Your task to perform on an android device: Show the shopping cart on bestbuy.com. Image 0: 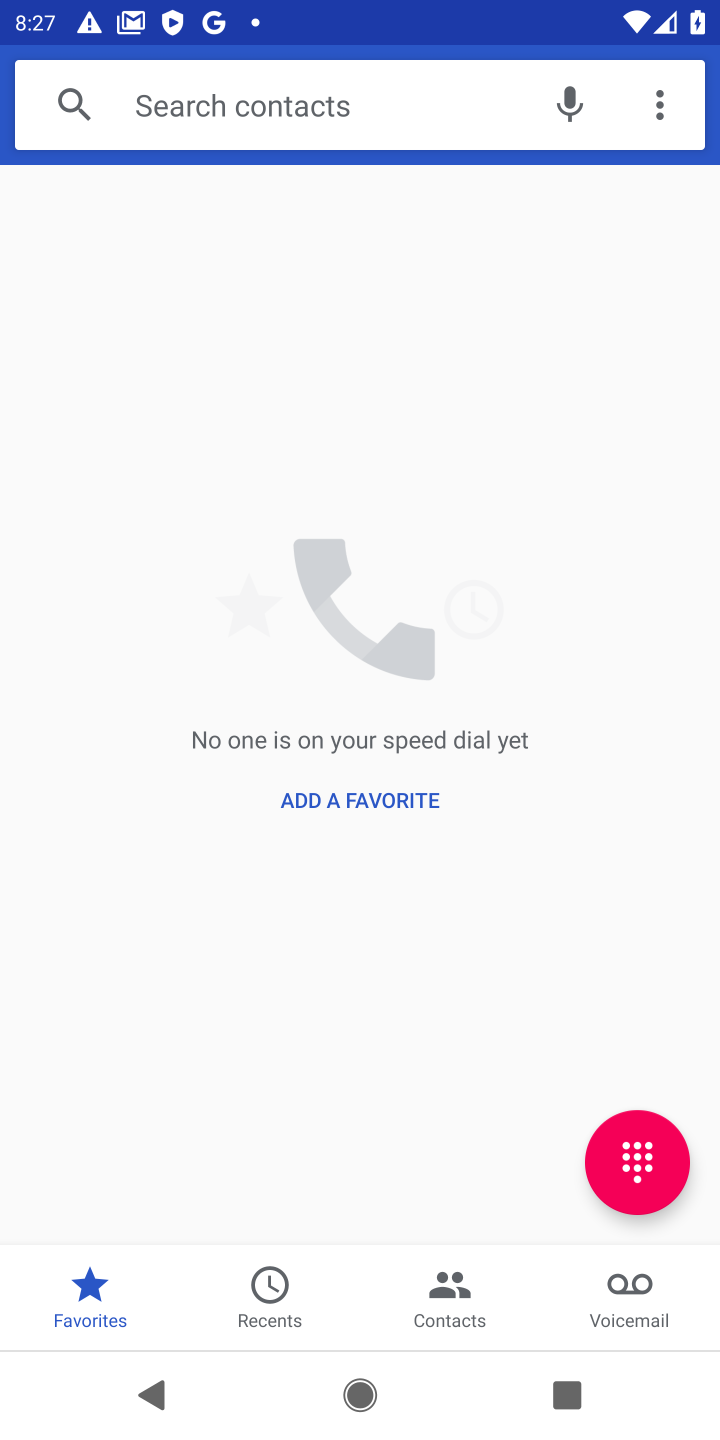
Step 0: press home button
Your task to perform on an android device: Show the shopping cart on bestbuy.com. Image 1: 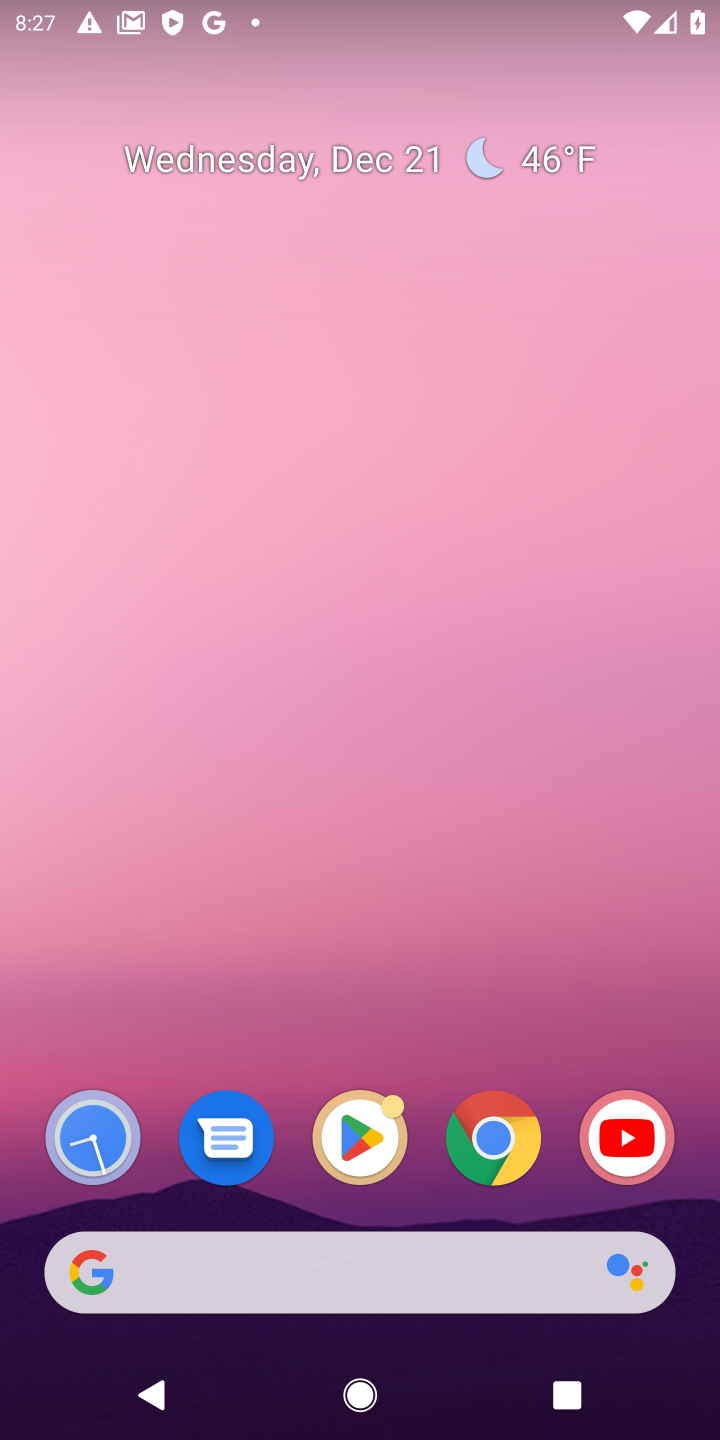
Step 1: click (494, 1164)
Your task to perform on an android device: Show the shopping cart on bestbuy.com. Image 2: 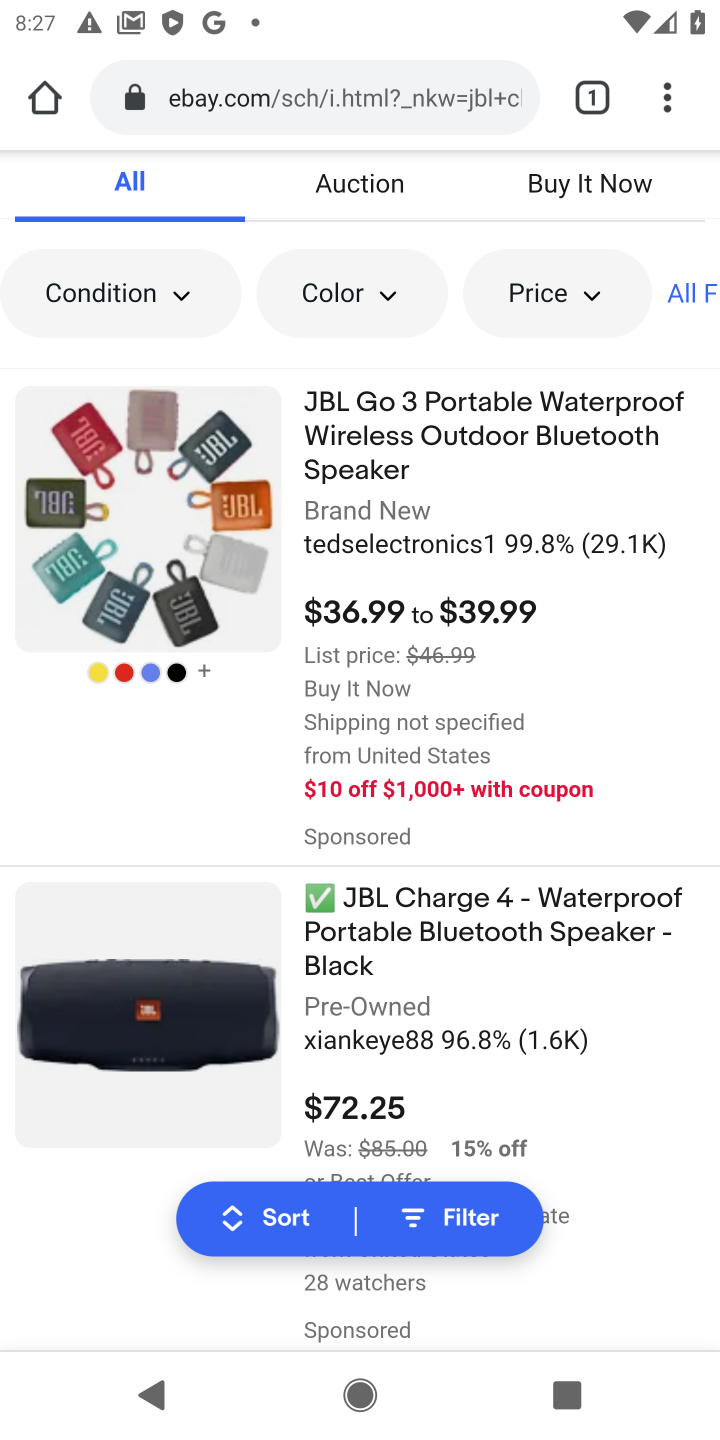
Step 2: click (240, 103)
Your task to perform on an android device: Show the shopping cart on bestbuy.com. Image 3: 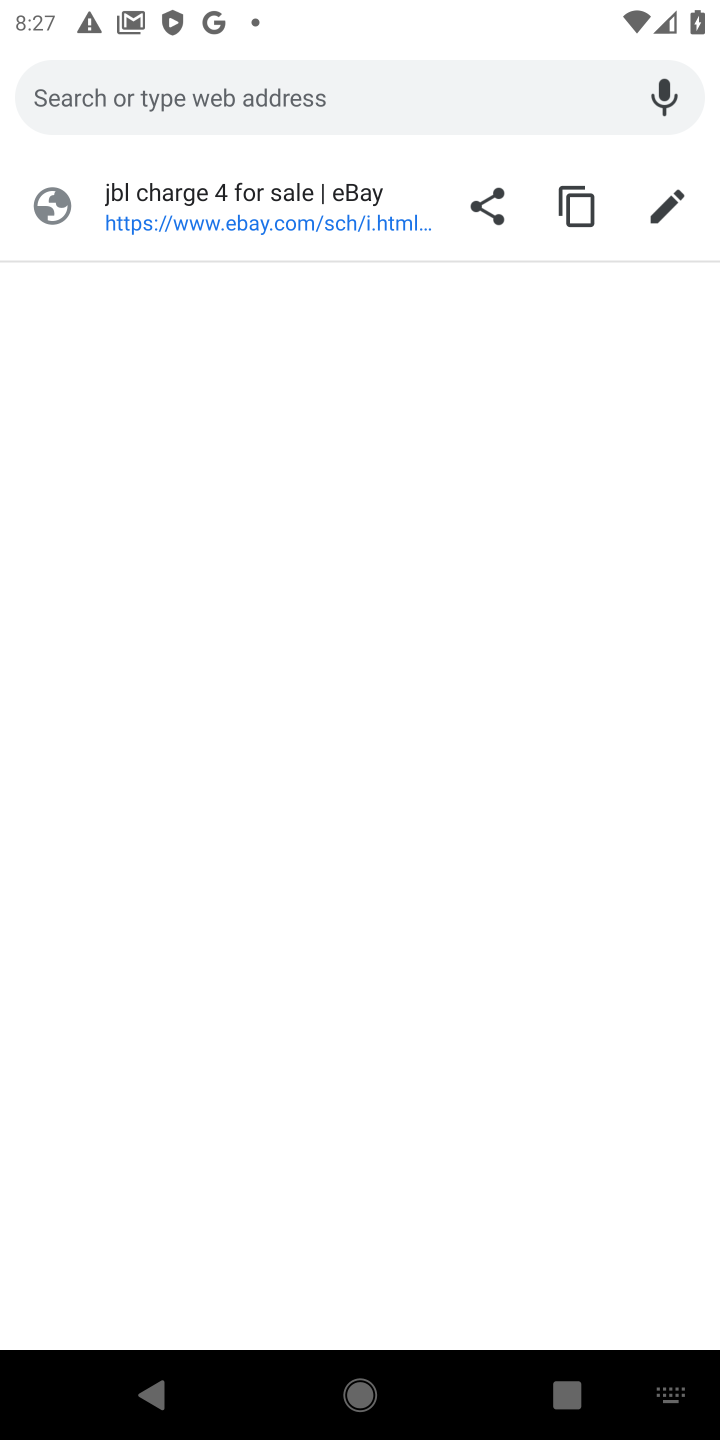
Step 3: type "bestbuy.com"
Your task to perform on an android device: Show the shopping cart on bestbuy.com. Image 4: 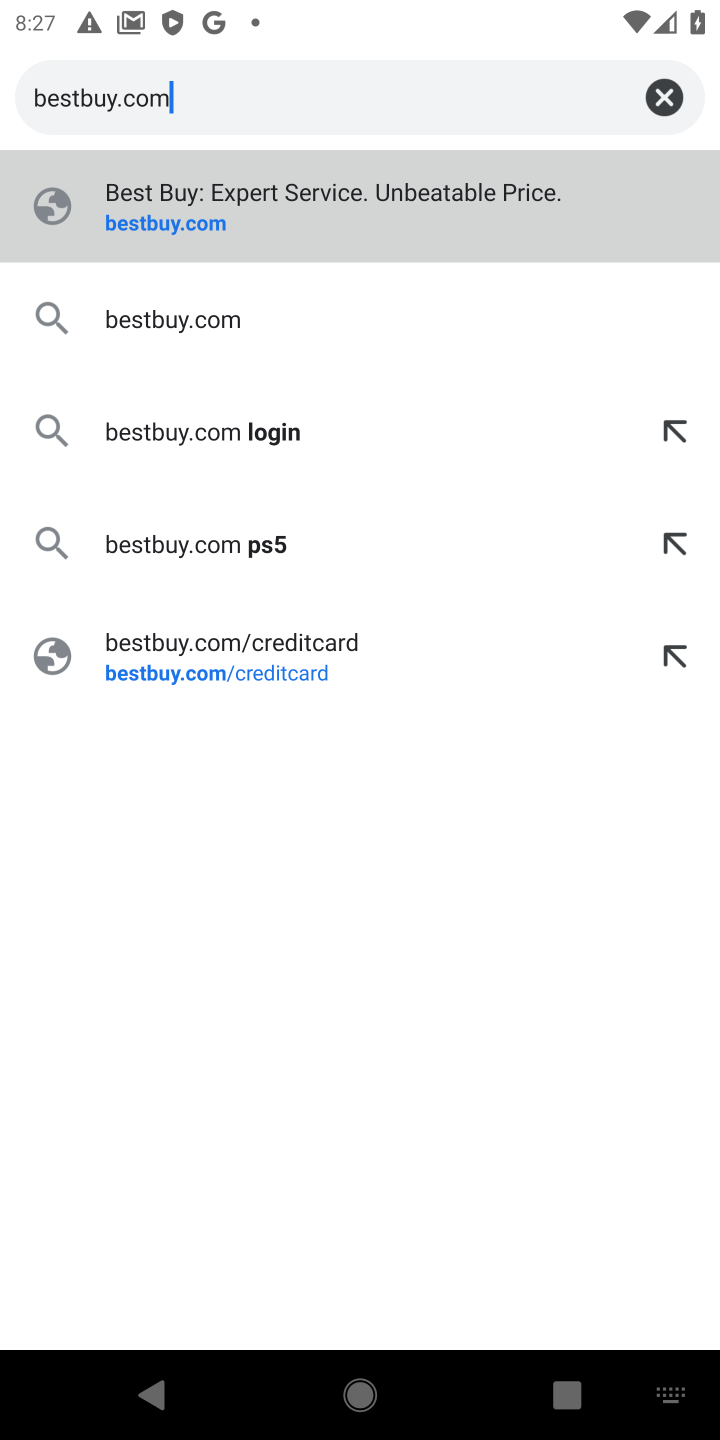
Step 4: click (148, 216)
Your task to perform on an android device: Show the shopping cart on bestbuy.com. Image 5: 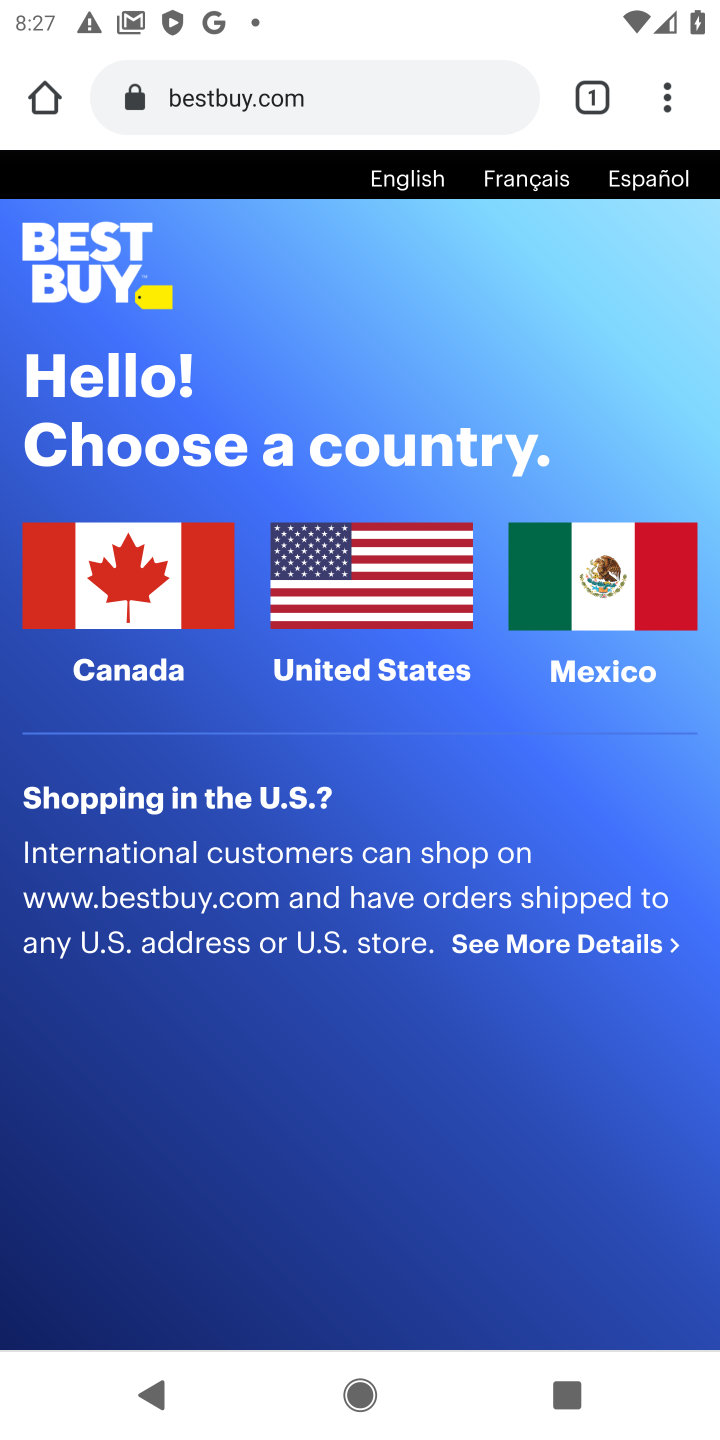
Step 5: click (347, 606)
Your task to perform on an android device: Show the shopping cart on bestbuy.com. Image 6: 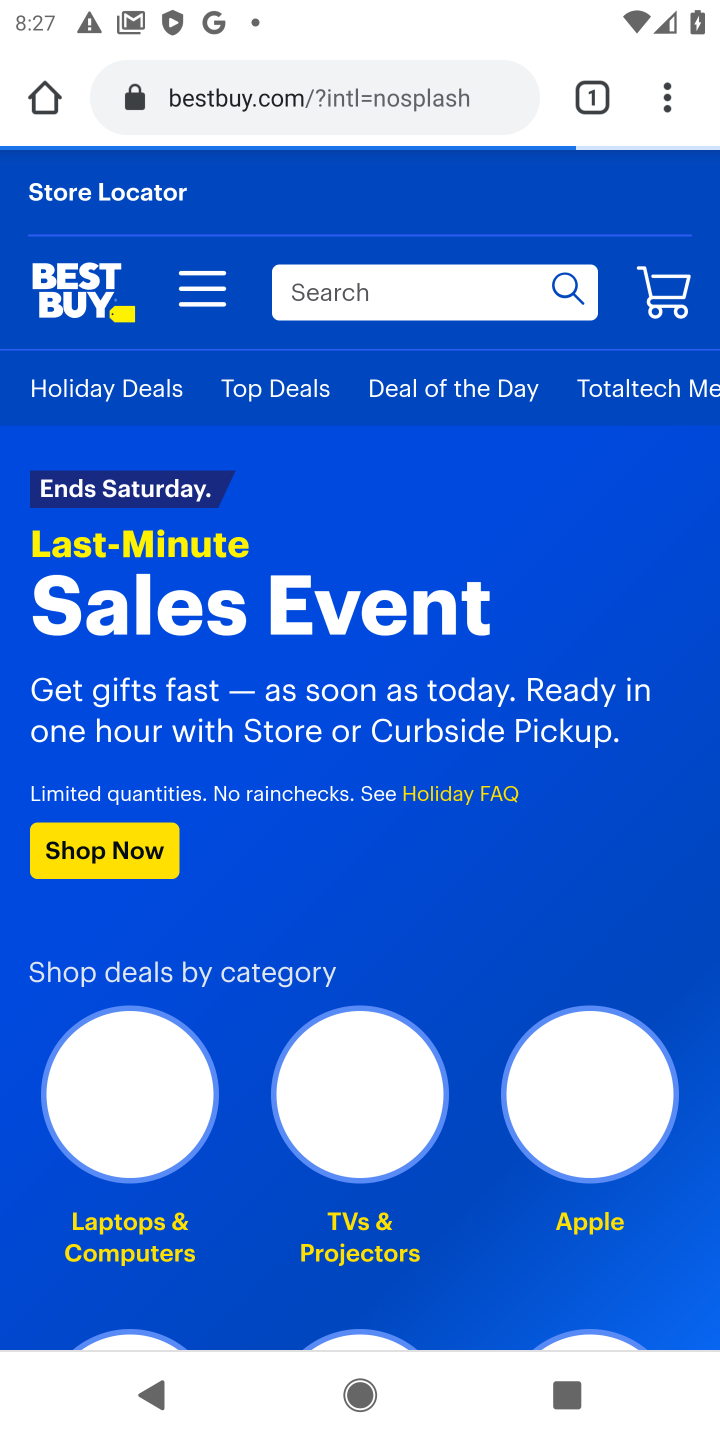
Step 6: click (676, 299)
Your task to perform on an android device: Show the shopping cart on bestbuy.com. Image 7: 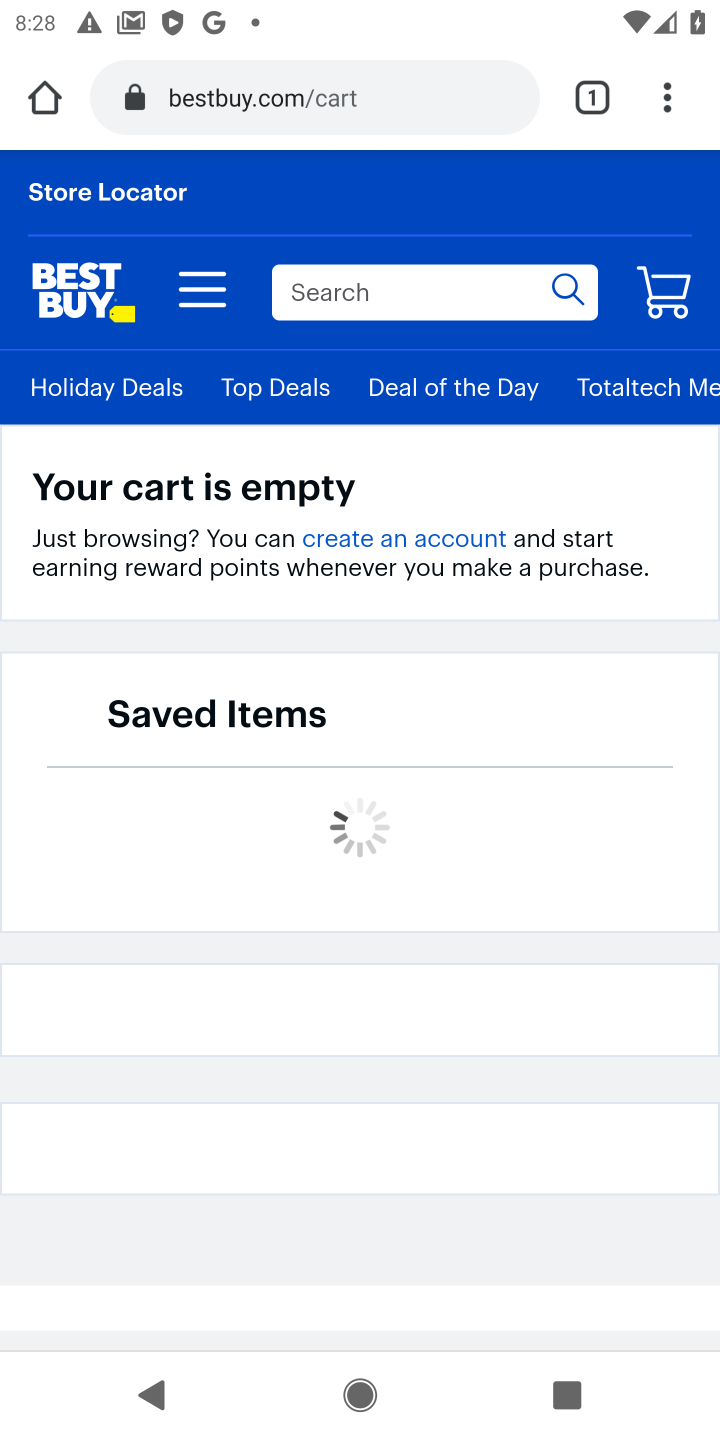
Step 7: task complete